Your task to perform on an android device: turn on notifications settings in the gmail app Image 0: 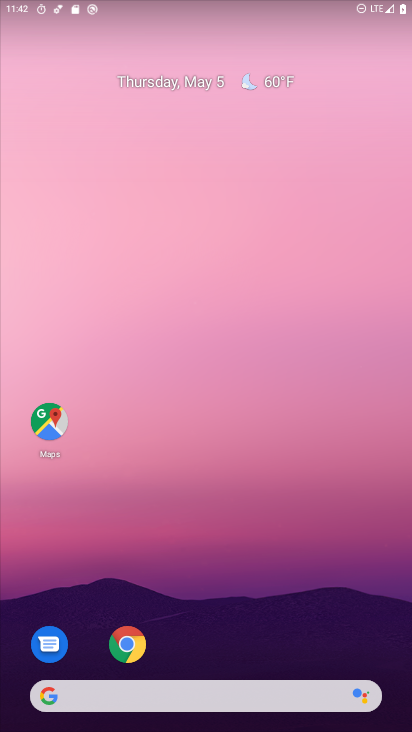
Step 0: drag from (350, 641) to (353, 167)
Your task to perform on an android device: turn on notifications settings in the gmail app Image 1: 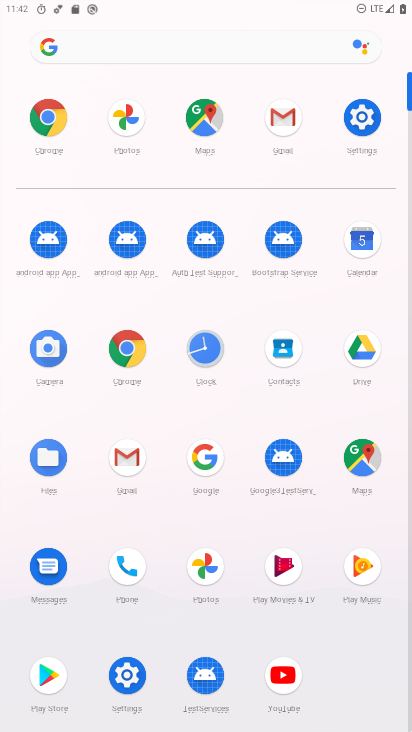
Step 1: click (118, 469)
Your task to perform on an android device: turn on notifications settings in the gmail app Image 2: 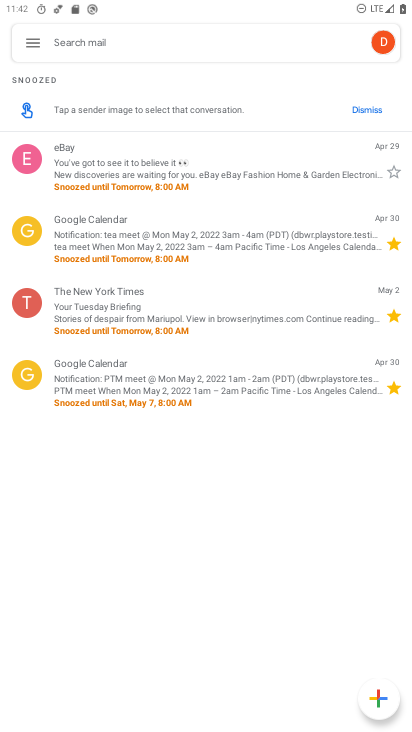
Step 2: click (24, 46)
Your task to perform on an android device: turn on notifications settings in the gmail app Image 3: 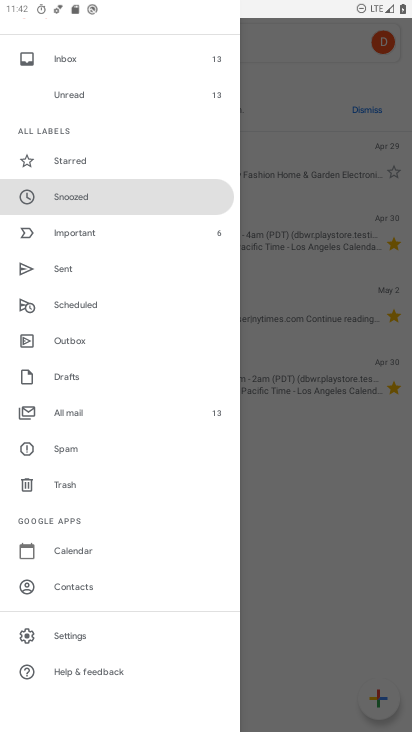
Step 3: click (113, 632)
Your task to perform on an android device: turn on notifications settings in the gmail app Image 4: 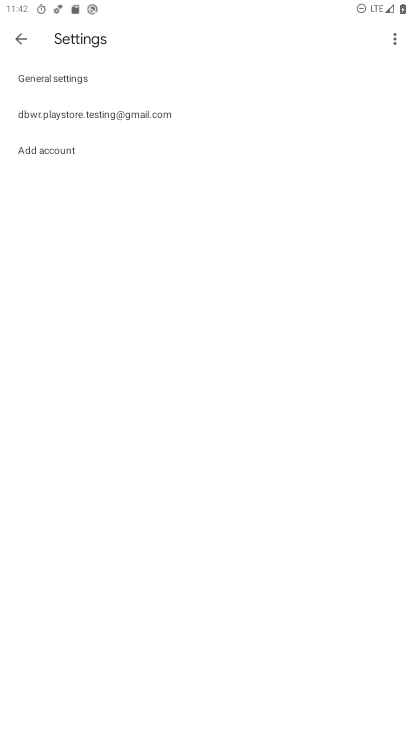
Step 4: click (151, 120)
Your task to perform on an android device: turn on notifications settings in the gmail app Image 5: 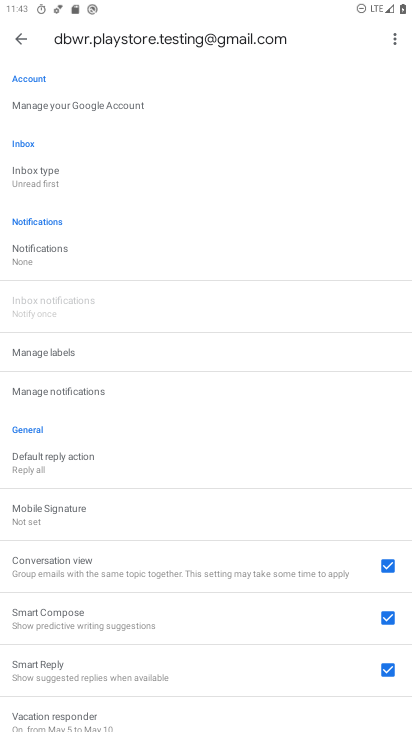
Step 5: click (82, 248)
Your task to perform on an android device: turn on notifications settings in the gmail app Image 6: 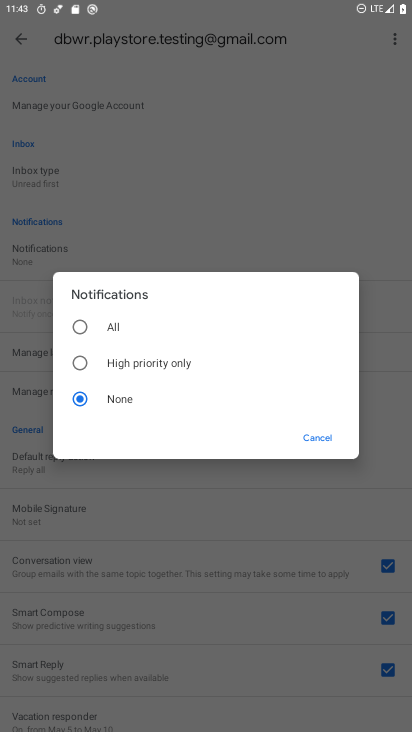
Step 6: click (113, 329)
Your task to perform on an android device: turn on notifications settings in the gmail app Image 7: 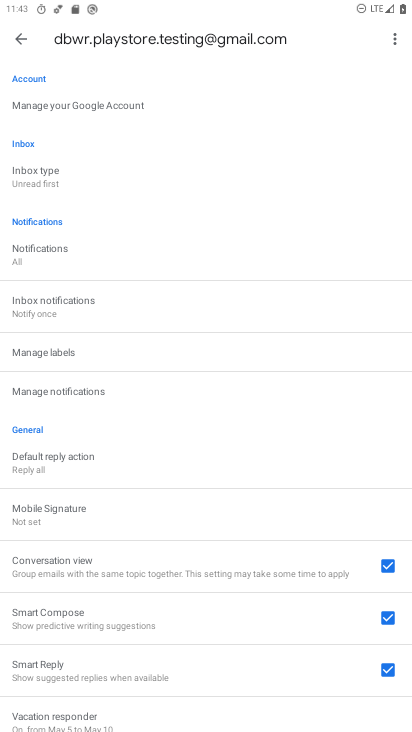
Step 7: task complete